Your task to perform on an android device: turn on sleep mode Image 0: 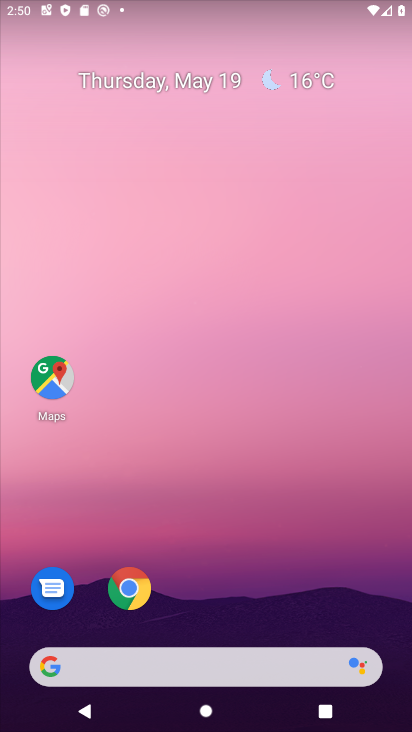
Step 0: drag from (245, 540) to (204, 162)
Your task to perform on an android device: turn on sleep mode Image 1: 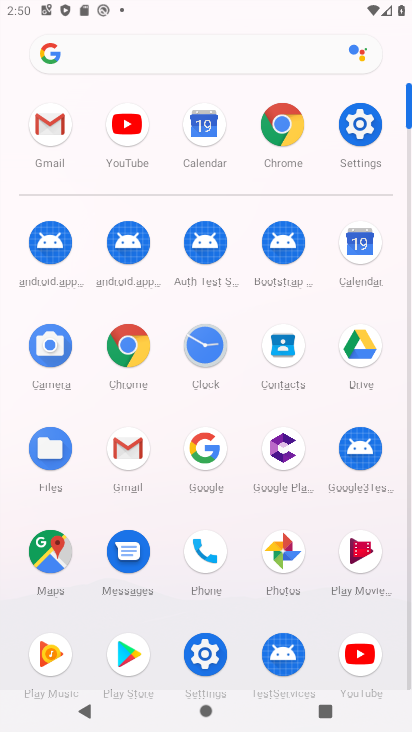
Step 1: click (357, 117)
Your task to perform on an android device: turn on sleep mode Image 2: 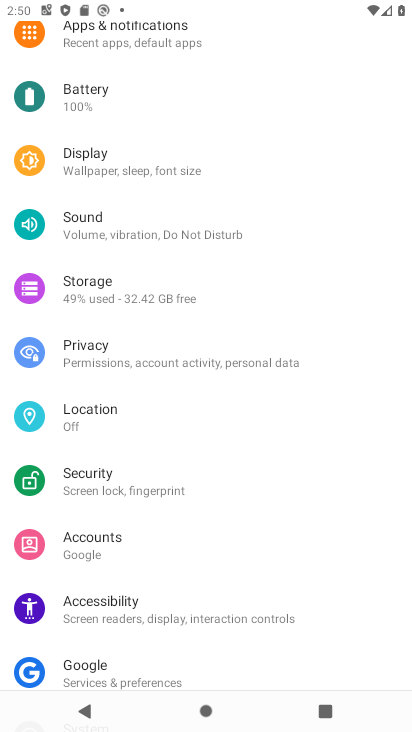
Step 2: click (122, 162)
Your task to perform on an android device: turn on sleep mode Image 3: 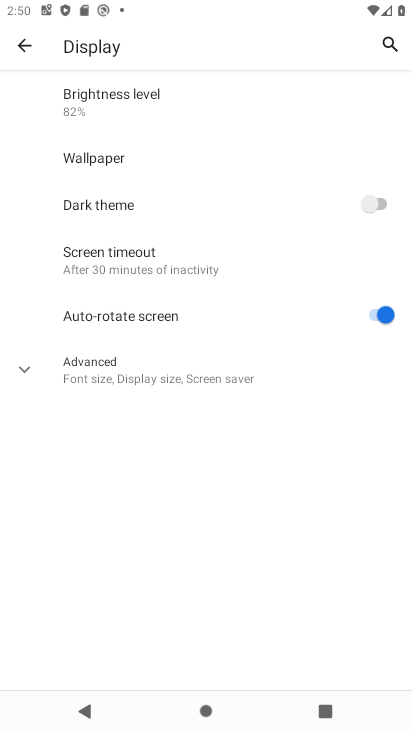
Step 3: click (123, 262)
Your task to perform on an android device: turn on sleep mode Image 4: 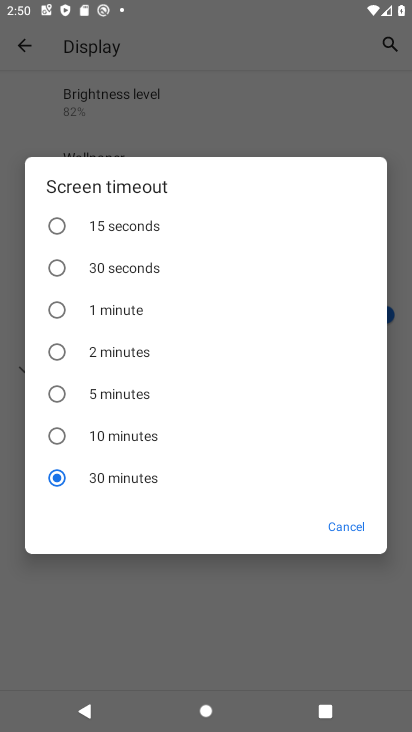
Step 4: task complete